Your task to perform on an android device: make emails show in primary in the gmail app Image 0: 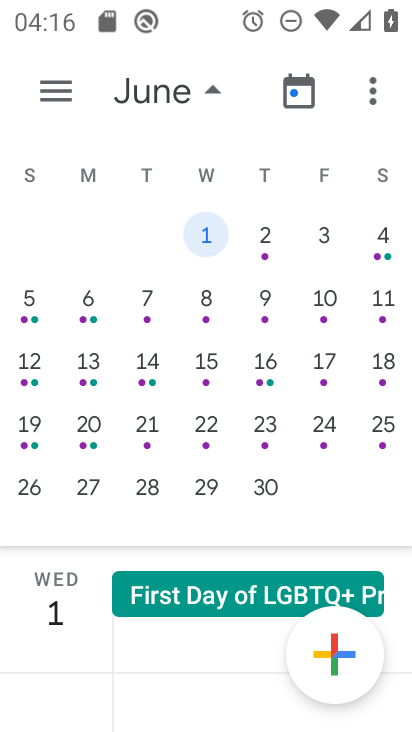
Step 0: press home button
Your task to perform on an android device: make emails show in primary in the gmail app Image 1: 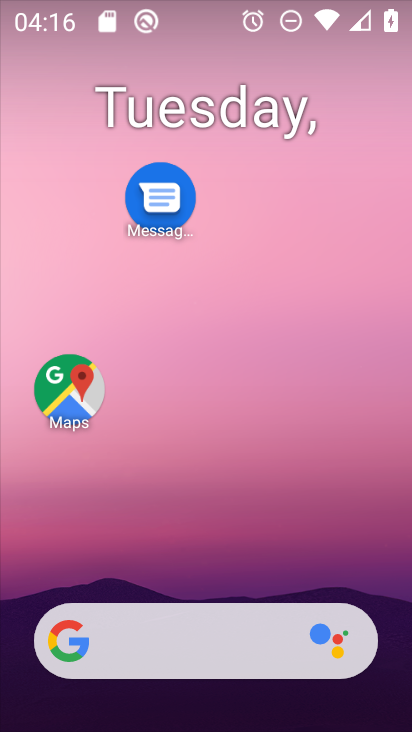
Step 1: drag from (210, 574) to (230, 263)
Your task to perform on an android device: make emails show in primary in the gmail app Image 2: 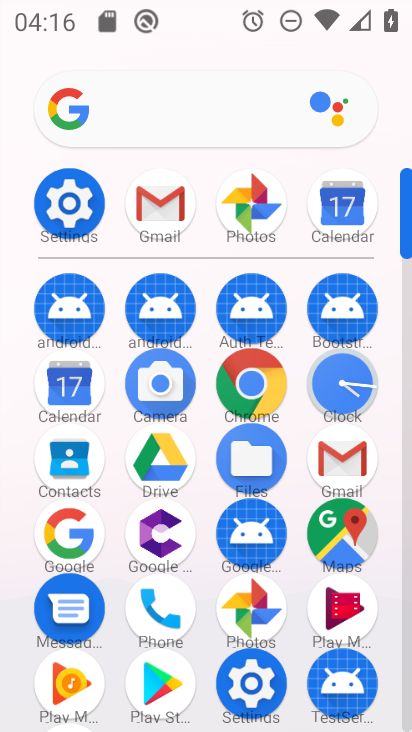
Step 2: click (320, 473)
Your task to perform on an android device: make emails show in primary in the gmail app Image 3: 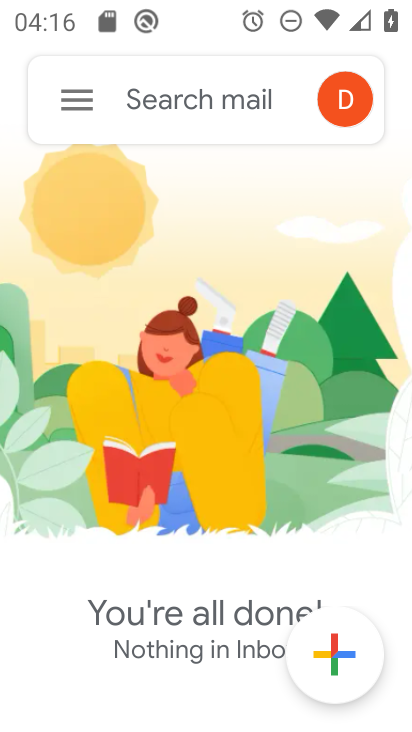
Step 3: click (76, 93)
Your task to perform on an android device: make emails show in primary in the gmail app Image 4: 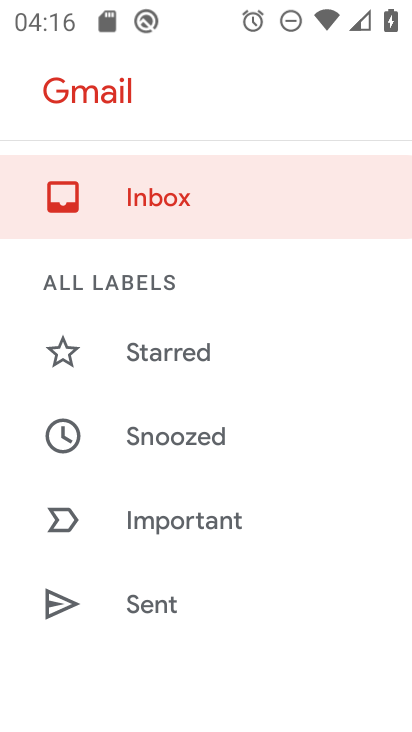
Step 4: drag from (187, 635) to (228, 313)
Your task to perform on an android device: make emails show in primary in the gmail app Image 5: 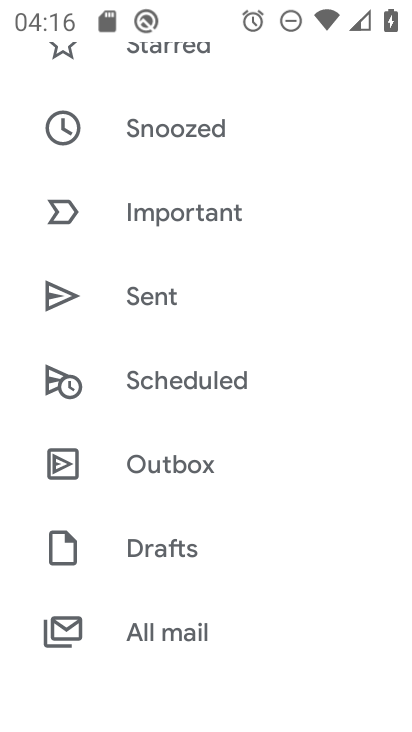
Step 5: drag from (191, 607) to (224, 277)
Your task to perform on an android device: make emails show in primary in the gmail app Image 6: 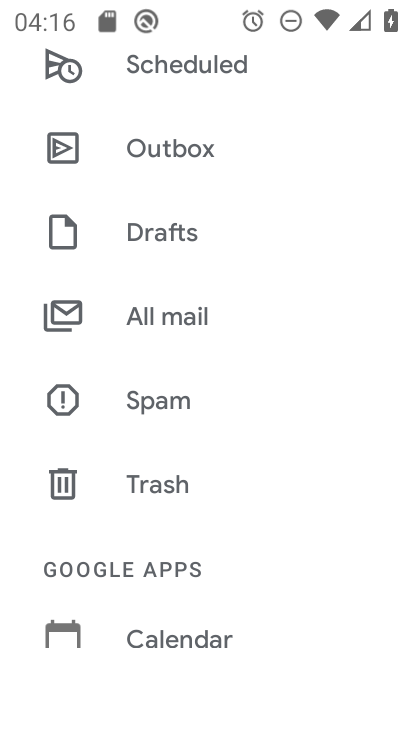
Step 6: drag from (192, 583) to (200, 272)
Your task to perform on an android device: make emails show in primary in the gmail app Image 7: 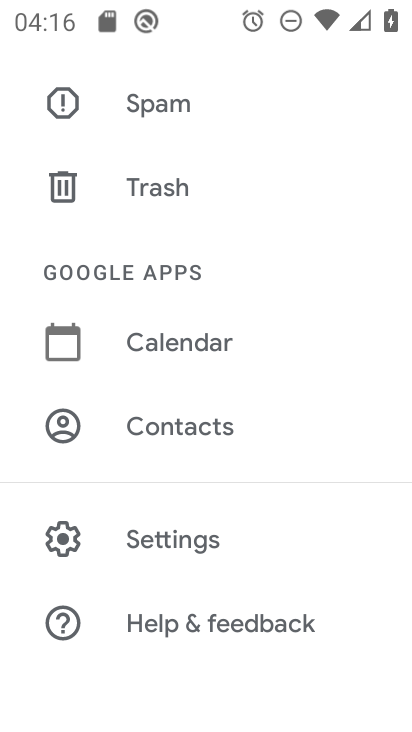
Step 7: click (173, 530)
Your task to perform on an android device: make emails show in primary in the gmail app Image 8: 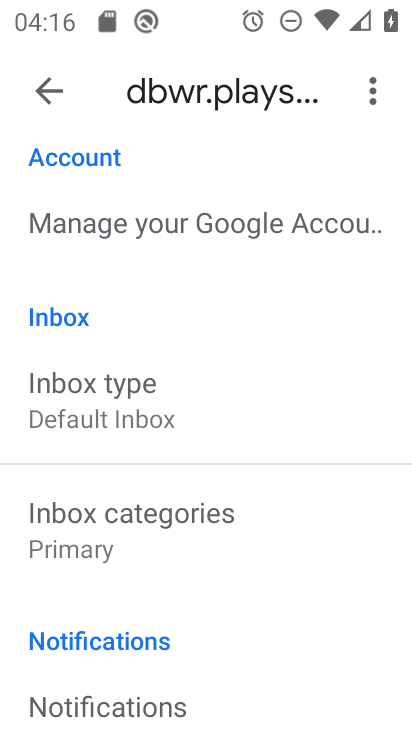
Step 8: click (155, 528)
Your task to perform on an android device: make emails show in primary in the gmail app Image 9: 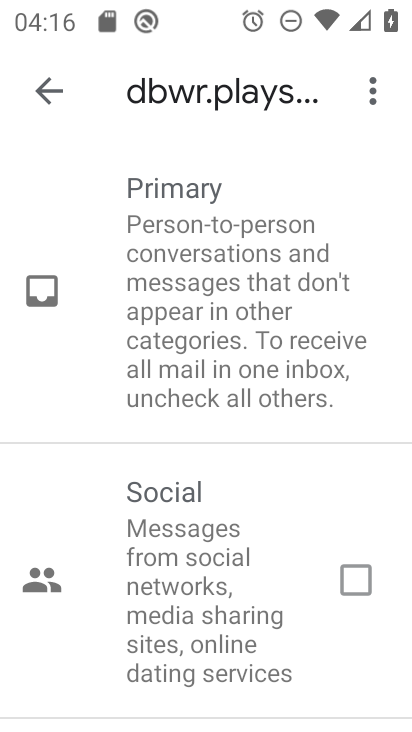
Step 9: click (167, 386)
Your task to perform on an android device: make emails show in primary in the gmail app Image 10: 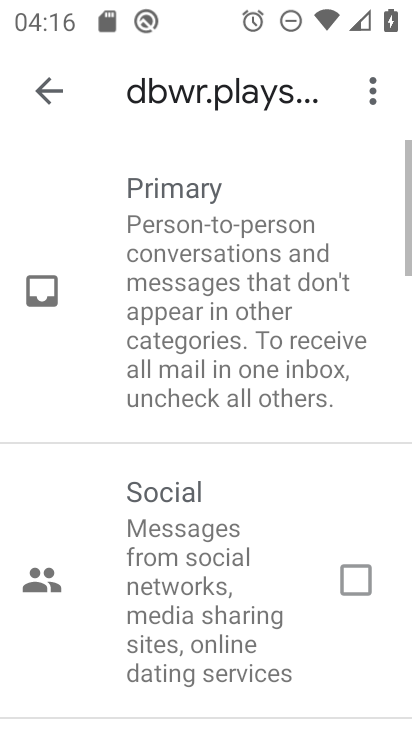
Step 10: task complete